Your task to perform on an android device: Is it going to rain today? Image 0: 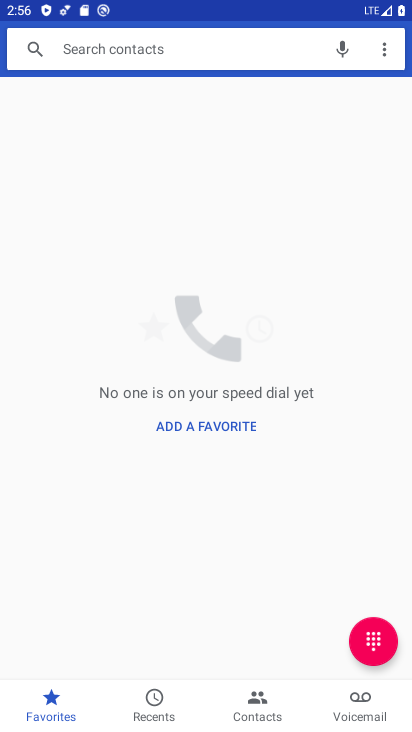
Step 0: press home button
Your task to perform on an android device: Is it going to rain today? Image 1: 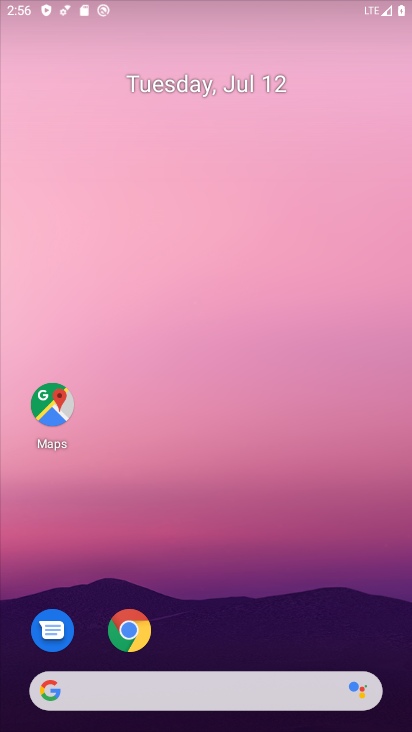
Step 1: drag from (259, 670) to (248, 79)
Your task to perform on an android device: Is it going to rain today? Image 2: 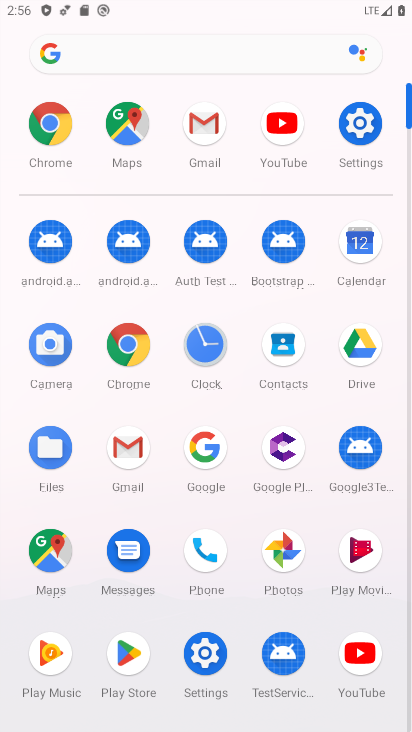
Step 2: click (142, 346)
Your task to perform on an android device: Is it going to rain today? Image 3: 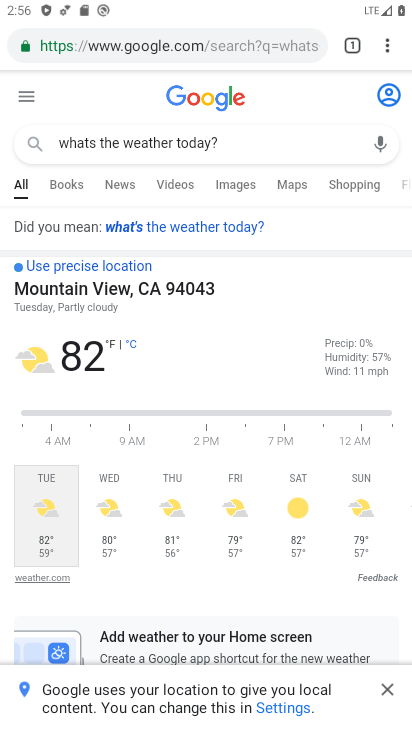
Step 3: click (194, 50)
Your task to perform on an android device: Is it going to rain today? Image 4: 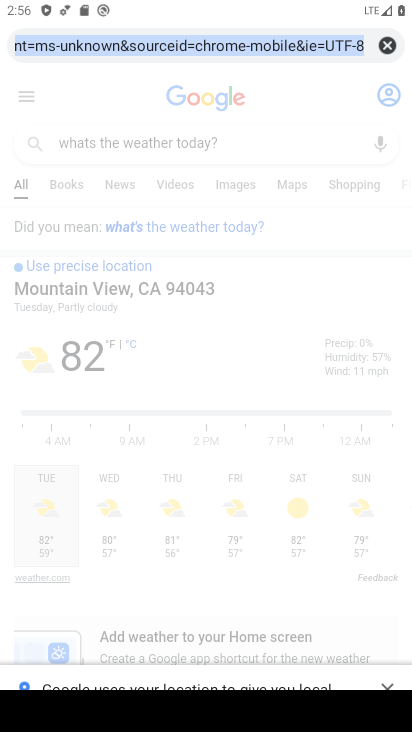
Step 4: task complete